Your task to perform on an android device: Open settings on Google Maps Image 0: 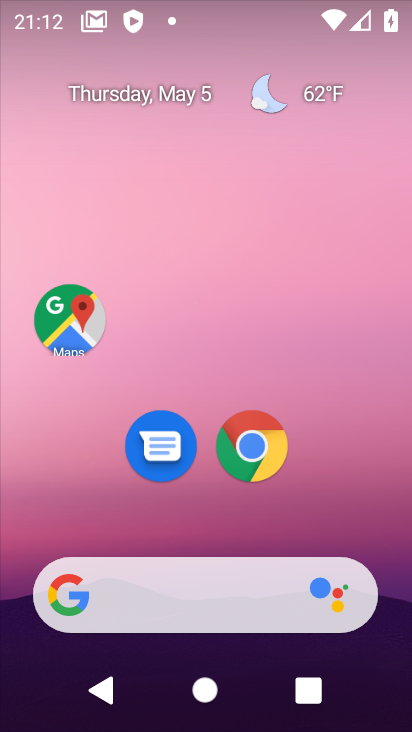
Step 0: drag from (284, 637) to (276, 154)
Your task to perform on an android device: Open settings on Google Maps Image 1: 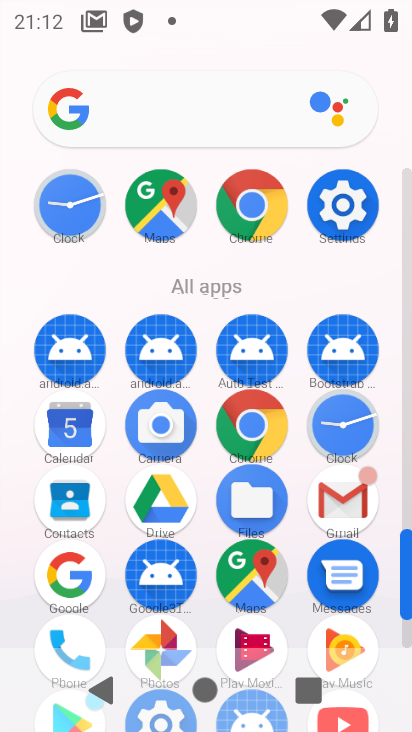
Step 1: click (154, 212)
Your task to perform on an android device: Open settings on Google Maps Image 2: 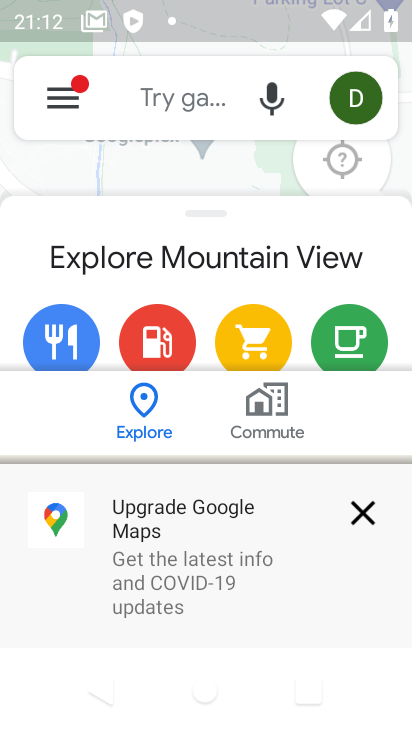
Step 2: click (370, 515)
Your task to perform on an android device: Open settings on Google Maps Image 3: 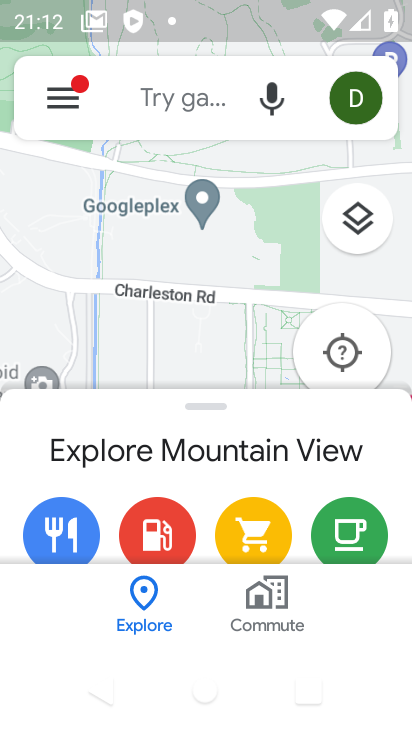
Step 3: click (62, 96)
Your task to perform on an android device: Open settings on Google Maps Image 4: 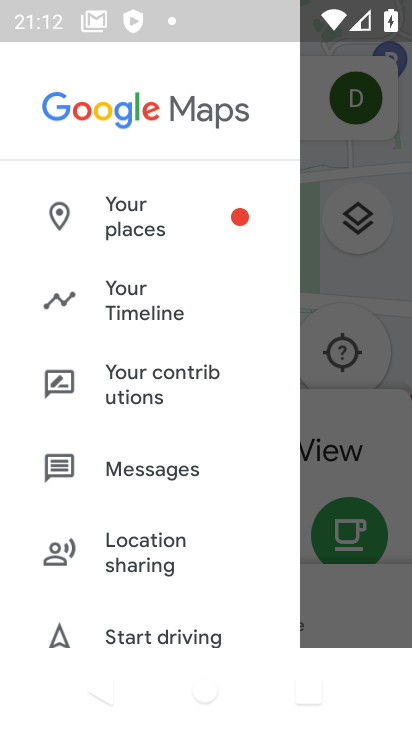
Step 4: drag from (159, 537) to (222, 318)
Your task to perform on an android device: Open settings on Google Maps Image 5: 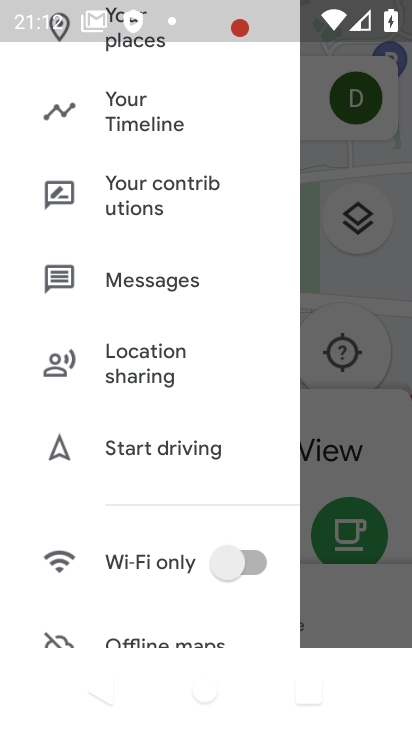
Step 5: drag from (164, 512) to (215, 401)
Your task to perform on an android device: Open settings on Google Maps Image 6: 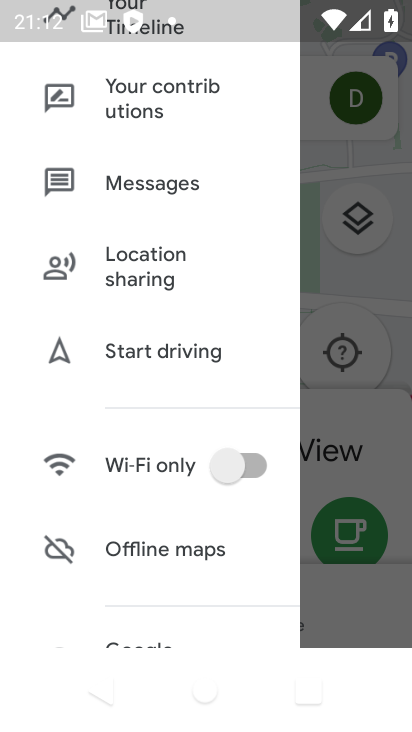
Step 6: drag from (150, 600) to (236, 314)
Your task to perform on an android device: Open settings on Google Maps Image 7: 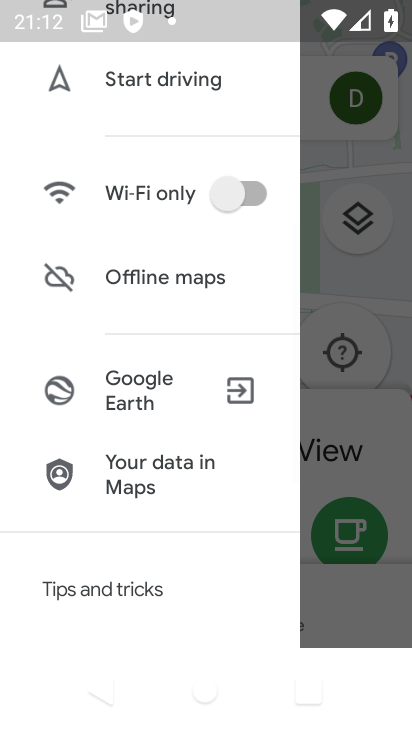
Step 7: drag from (157, 584) to (185, 455)
Your task to perform on an android device: Open settings on Google Maps Image 8: 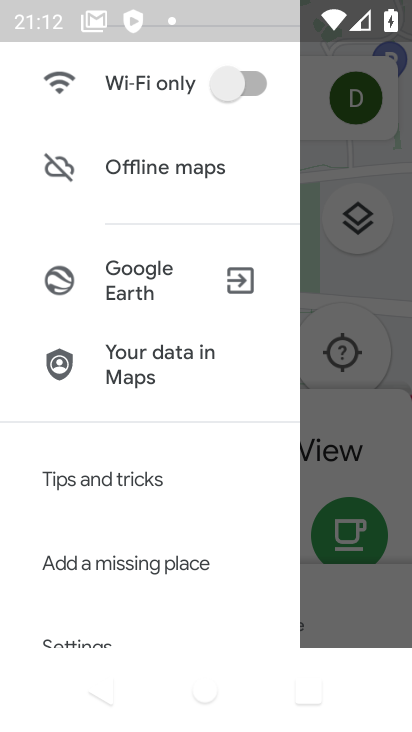
Step 8: click (125, 628)
Your task to perform on an android device: Open settings on Google Maps Image 9: 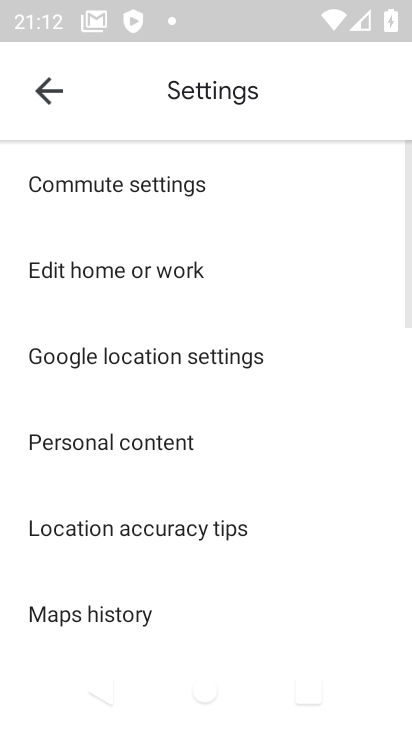
Step 9: task complete